Your task to perform on an android device: turn on improve location accuracy Image 0: 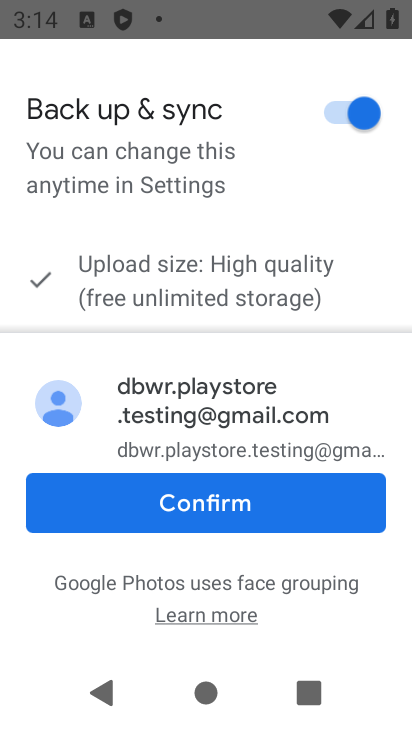
Step 0: click (237, 509)
Your task to perform on an android device: turn on improve location accuracy Image 1: 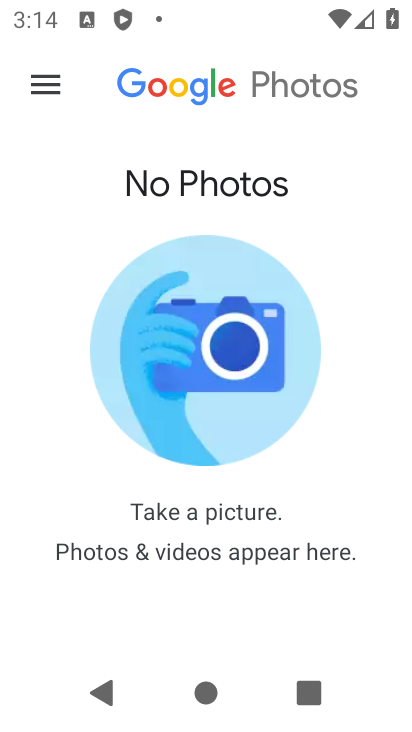
Step 1: task complete